Your task to perform on an android device: turn off notifications settings in the gmail app Image 0: 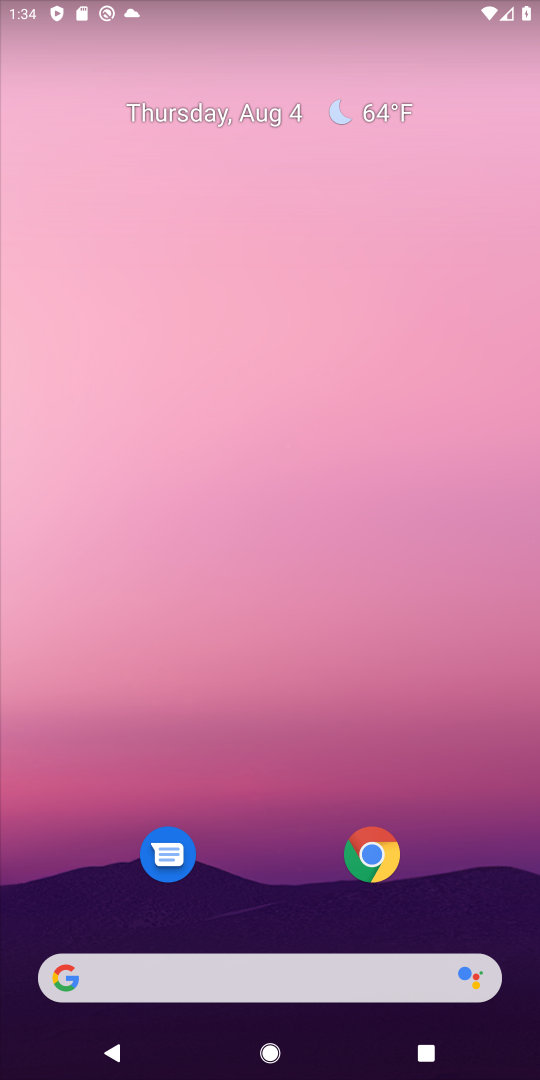
Step 0: drag from (328, 747) to (375, 35)
Your task to perform on an android device: turn off notifications settings in the gmail app Image 1: 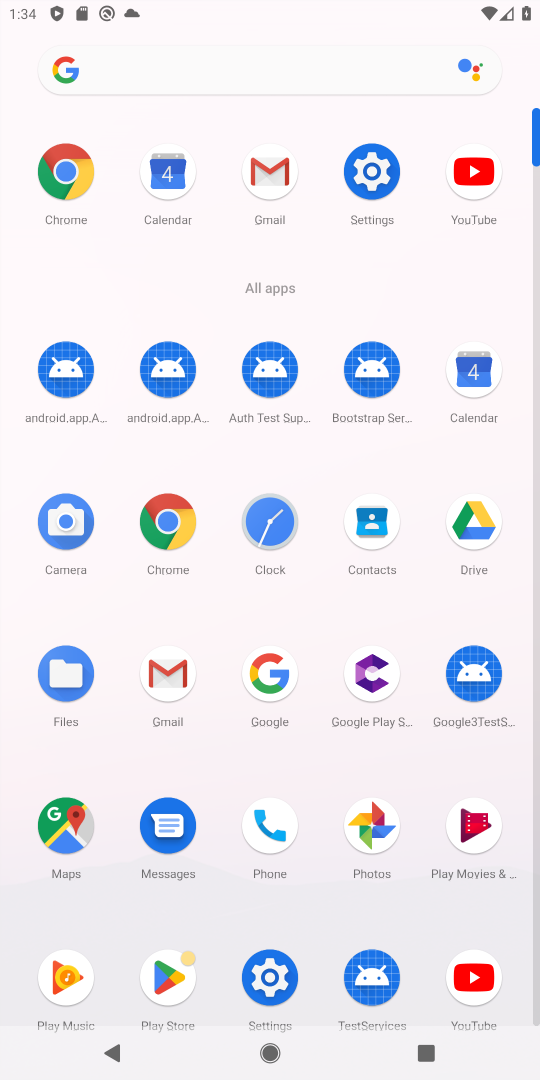
Step 1: click (272, 151)
Your task to perform on an android device: turn off notifications settings in the gmail app Image 2: 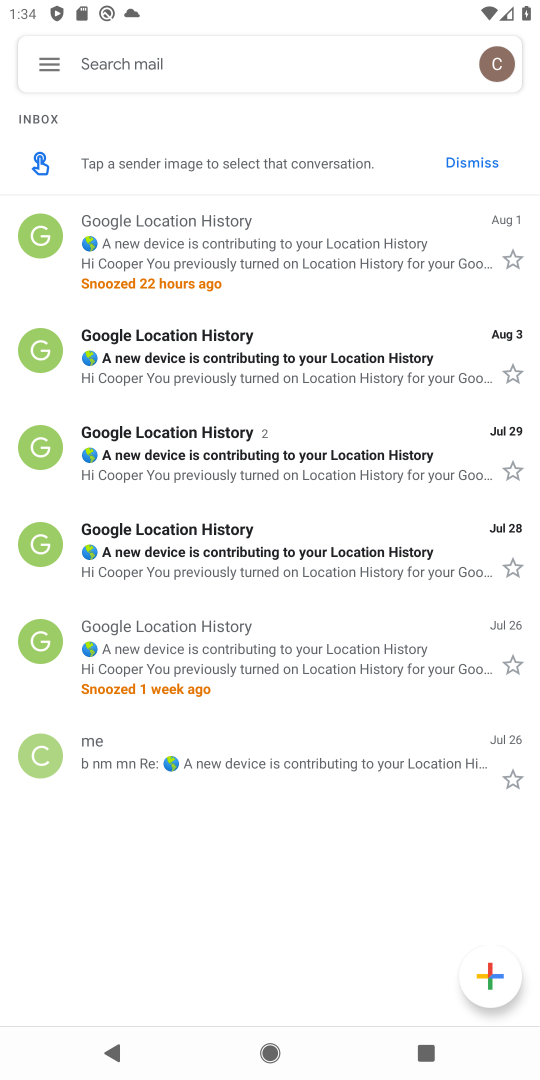
Step 2: task complete